Your task to perform on an android device: see tabs open on other devices in the chrome app Image 0: 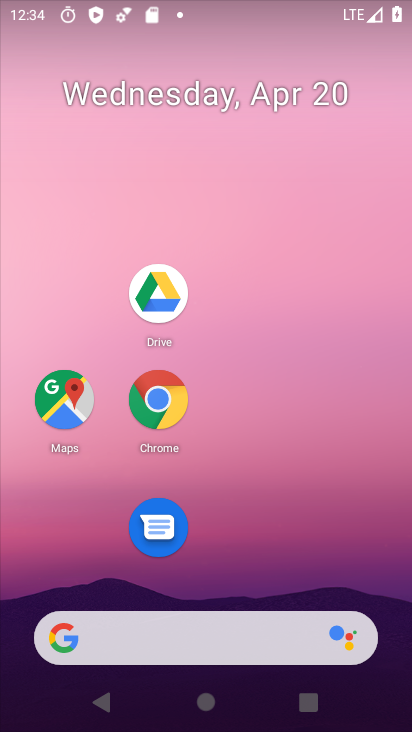
Step 0: drag from (292, 624) to (207, 238)
Your task to perform on an android device: see tabs open on other devices in the chrome app Image 1: 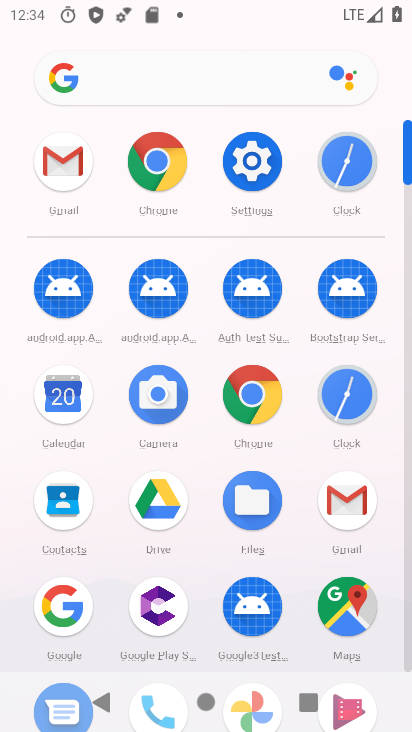
Step 1: click (247, 405)
Your task to perform on an android device: see tabs open on other devices in the chrome app Image 2: 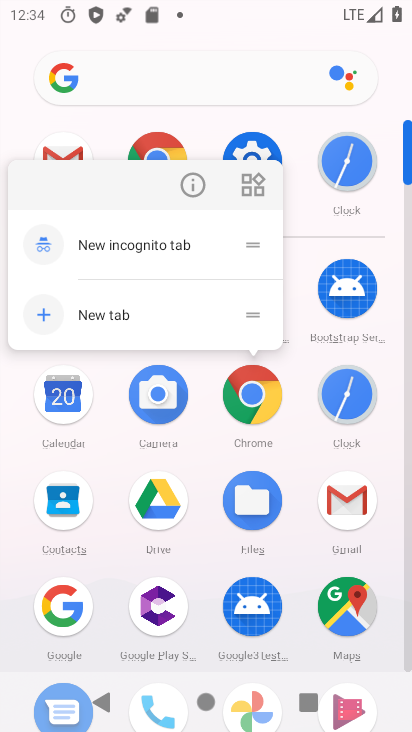
Step 2: click (253, 404)
Your task to perform on an android device: see tabs open on other devices in the chrome app Image 3: 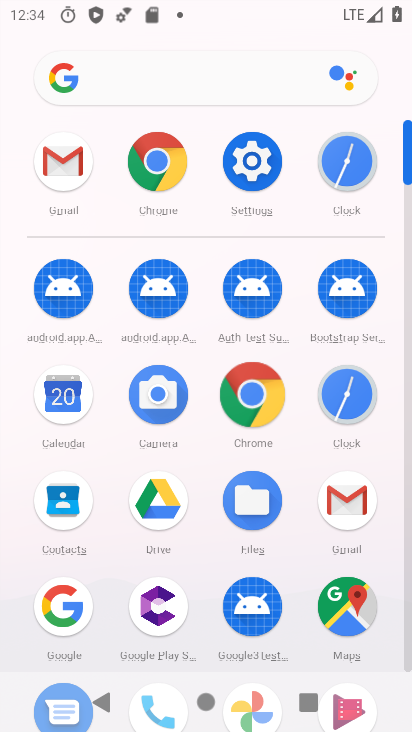
Step 3: click (255, 402)
Your task to perform on an android device: see tabs open on other devices in the chrome app Image 4: 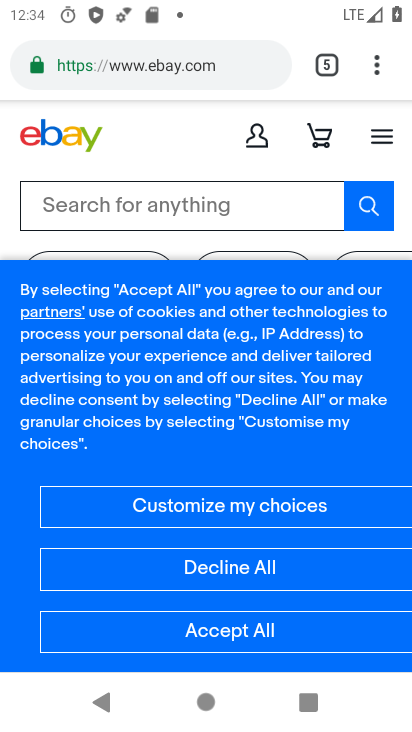
Step 4: click (375, 70)
Your task to perform on an android device: see tabs open on other devices in the chrome app Image 5: 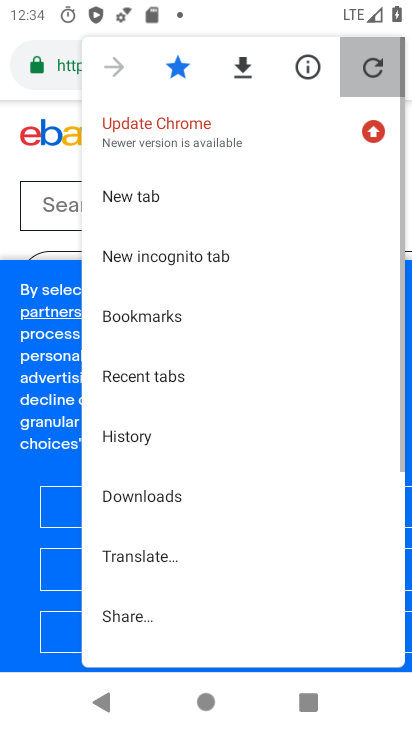
Step 5: click (383, 68)
Your task to perform on an android device: see tabs open on other devices in the chrome app Image 6: 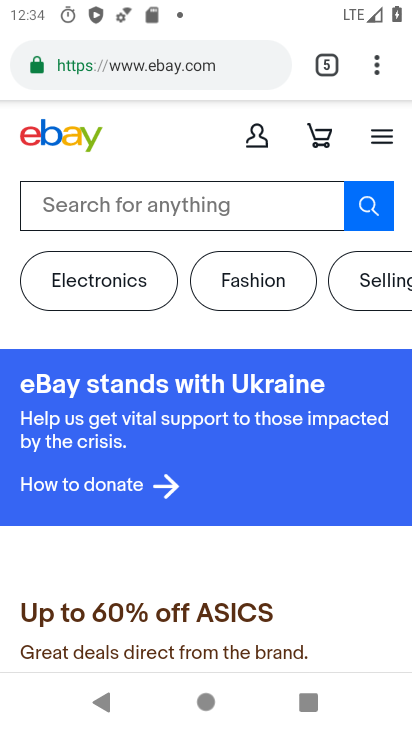
Step 6: click (371, 65)
Your task to perform on an android device: see tabs open on other devices in the chrome app Image 7: 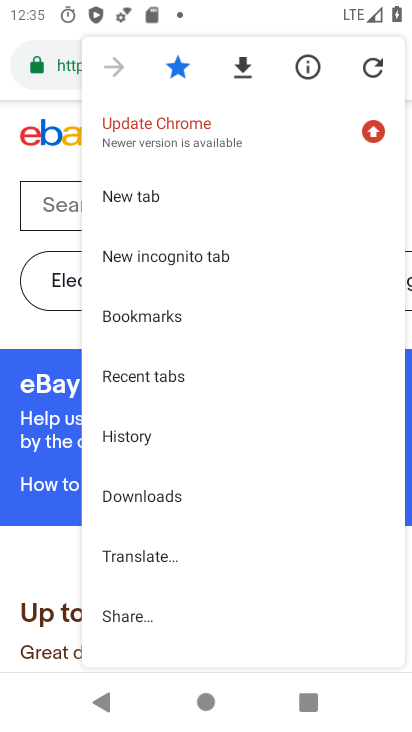
Step 7: click (159, 191)
Your task to perform on an android device: see tabs open on other devices in the chrome app Image 8: 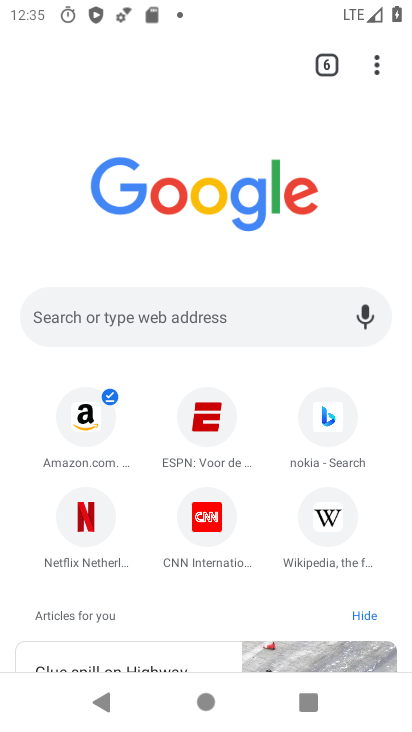
Step 8: task complete